Your task to perform on an android device: check battery use Image 0: 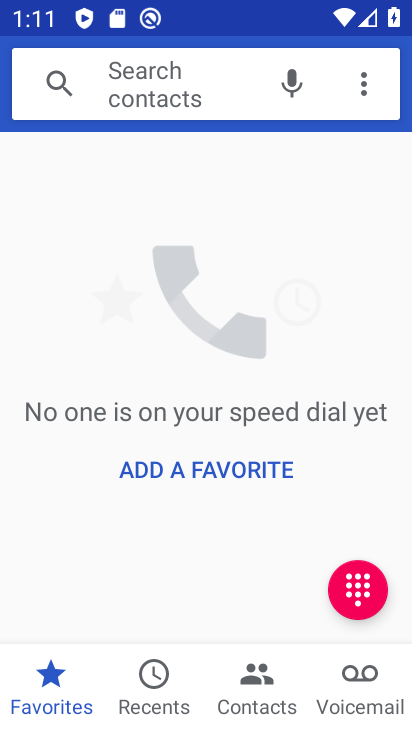
Step 0: press home button
Your task to perform on an android device: check battery use Image 1: 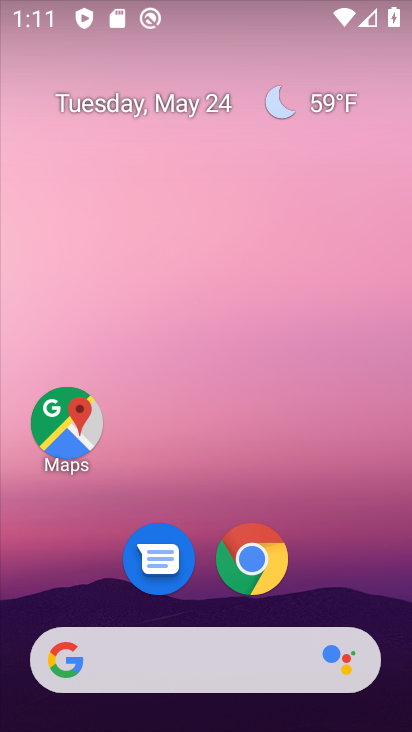
Step 1: drag from (387, 634) to (248, 88)
Your task to perform on an android device: check battery use Image 2: 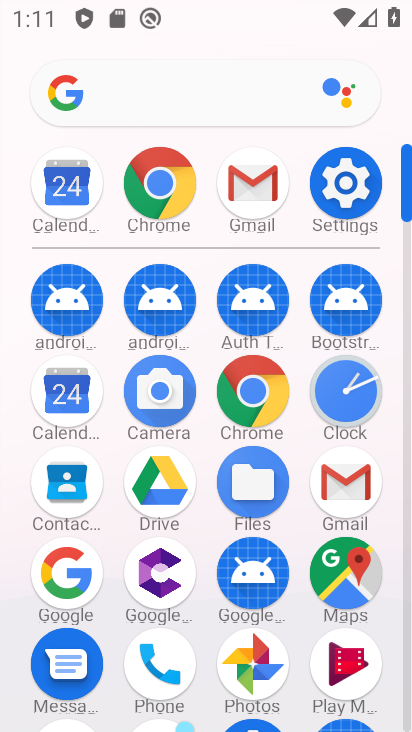
Step 2: click (350, 182)
Your task to perform on an android device: check battery use Image 3: 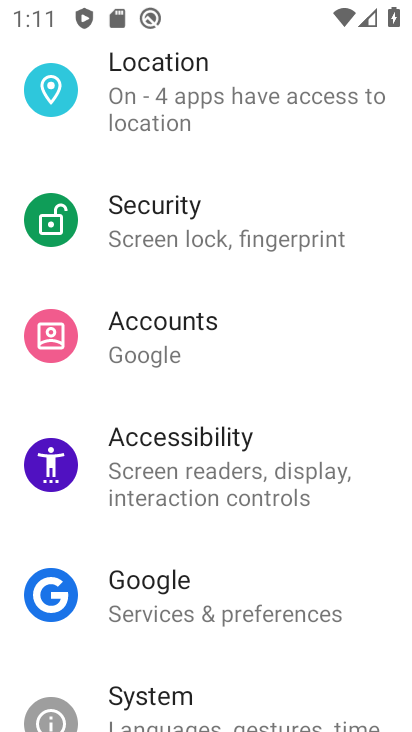
Step 3: drag from (226, 143) to (278, 578)
Your task to perform on an android device: check battery use Image 4: 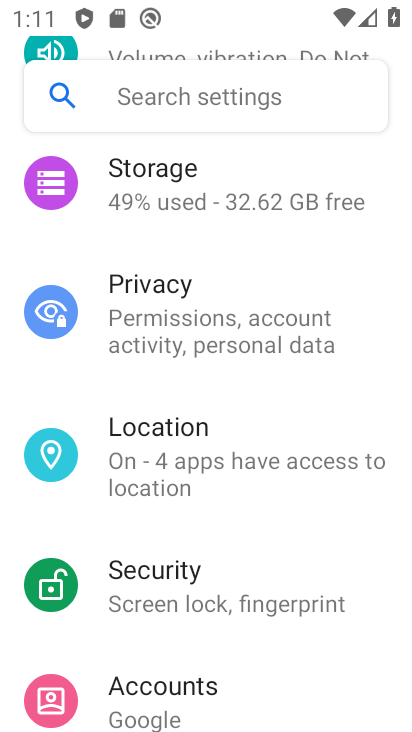
Step 4: drag from (187, 238) to (222, 592)
Your task to perform on an android device: check battery use Image 5: 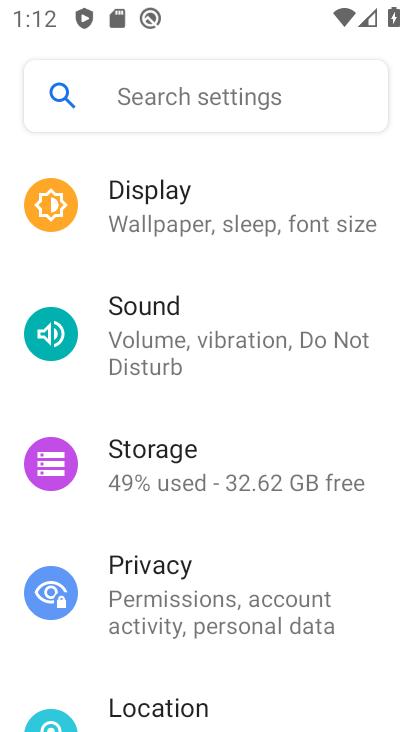
Step 5: drag from (177, 170) to (199, 578)
Your task to perform on an android device: check battery use Image 6: 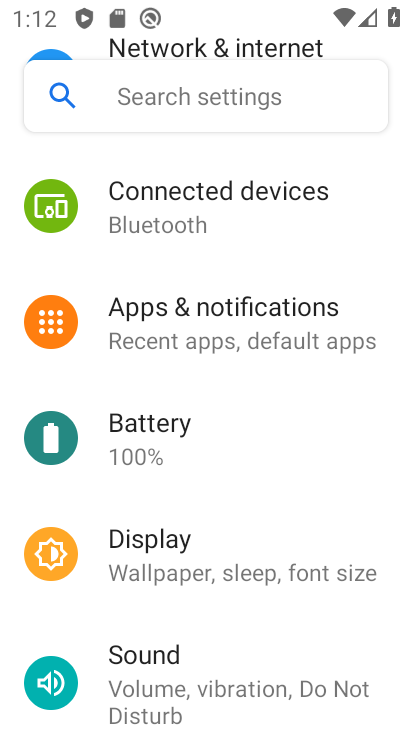
Step 6: click (154, 455)
Your task to perform on an android device: check battery use Image 7: 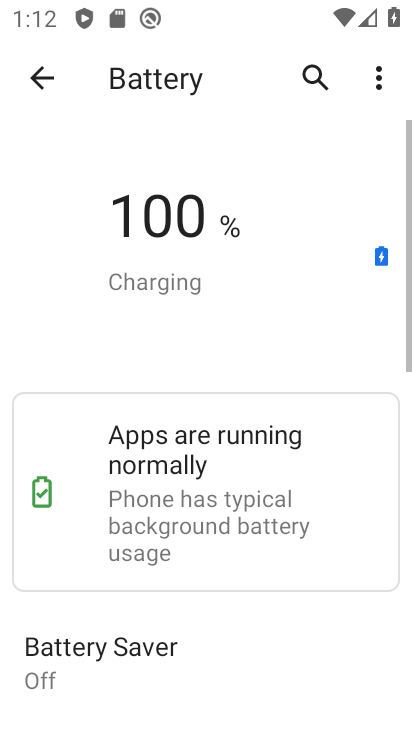
Step 7: click (390, 72)
Your task to perform on an android device: check battery use Image 8: 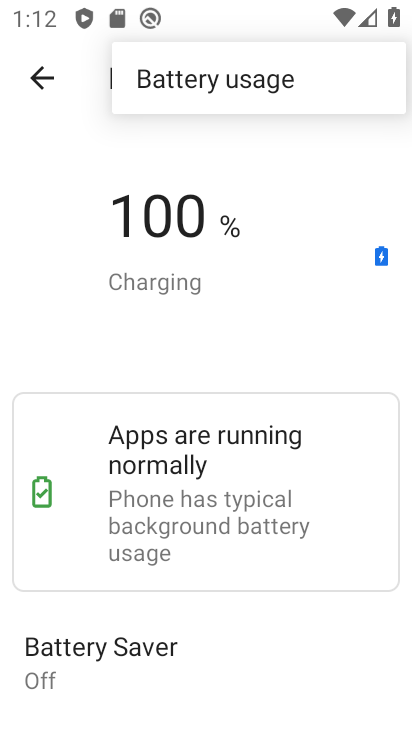
Step 8: click (276, 72)
Your task to perform on an android device: check battery use Image 9: 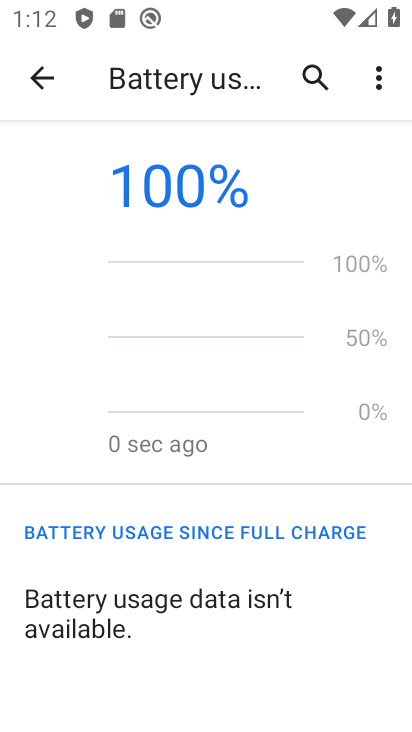
Step 9: task complete